Your task to perform on an android device: allow cookies in the chrome app Image 0: 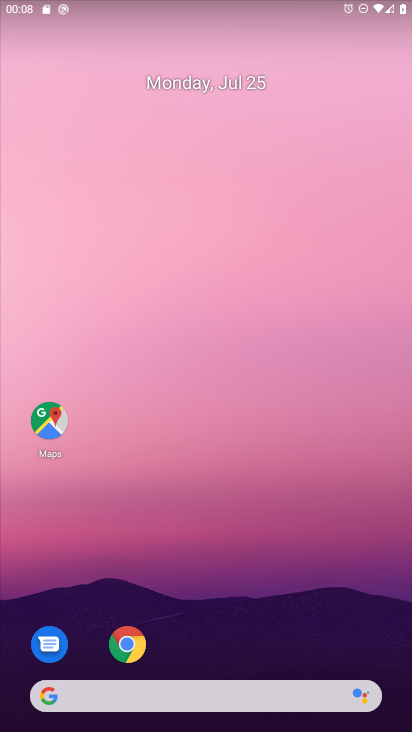
Step 0: click (125, 646)
Your task to perform on an android device: allow cookies in the chrome app Image 1: 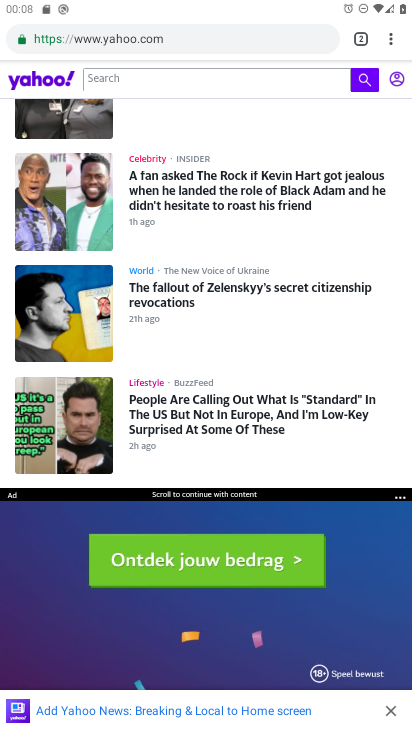
Step 1: click (392, 43)
Your task to perform on an android device: allow cookies in the chrome app Image 2: 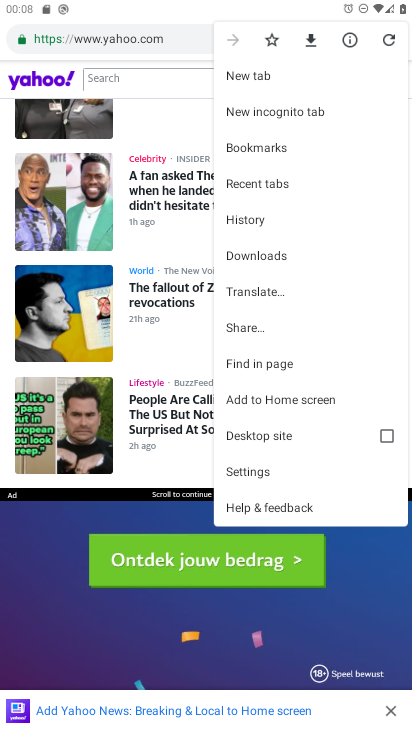
Step 2: click (250, 469)
Your task to perform on an android device: allow cookies in the chrome app Image 3: 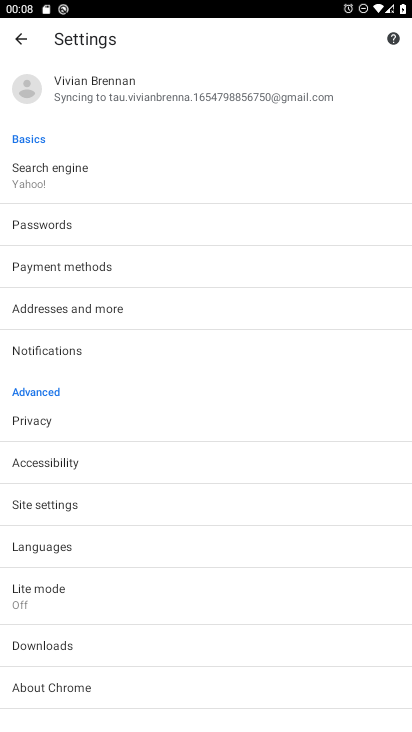
Step 3: click (23, 503)
Your task to perform on an android device: allow cookies in the chrome app Image 4: 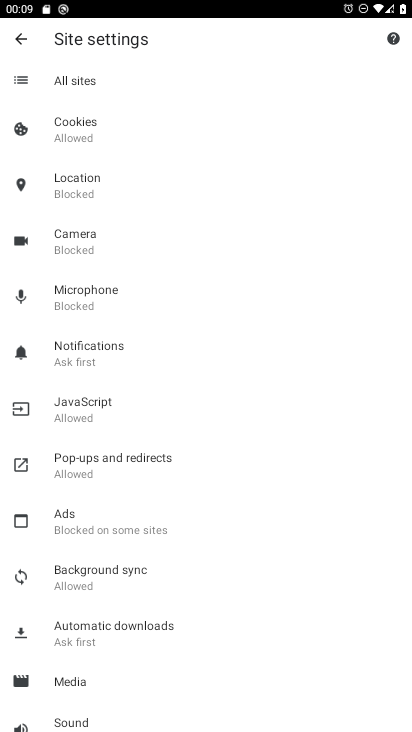
Step 4: click (69, 133)
Your task to perform on an android device: allow cookies in the chrome app Image 5: 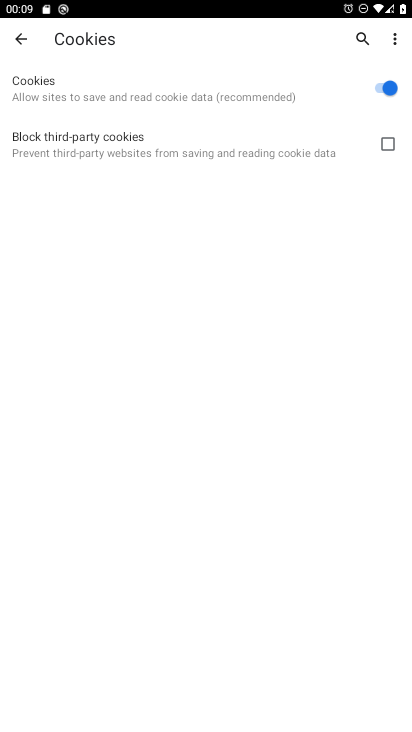
Step 5: task complete